Your task to perform on an android device: Search for Mexican restaurants on Maps Image 0: 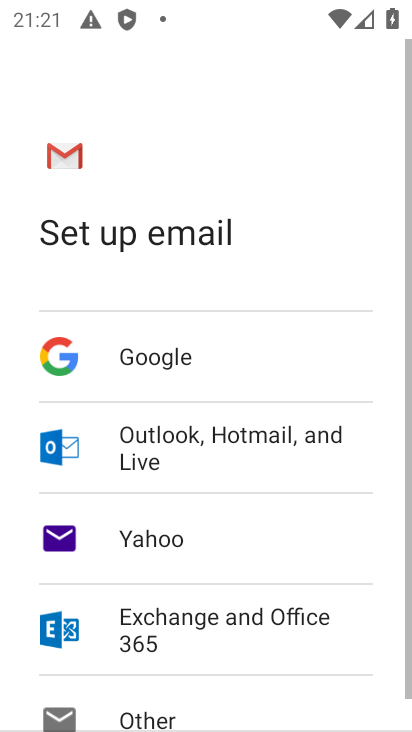
Step 0: press home button
Your task to perform on an android device: Search for Mexican restaurants on Maps Image 1: 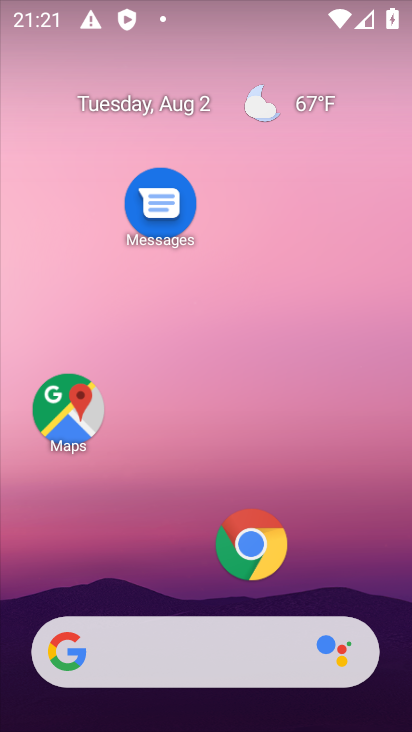
Step 1: click (73, 411)
Your task to perform on an android device: Search for Mexican restaurants on Maps Image 2: 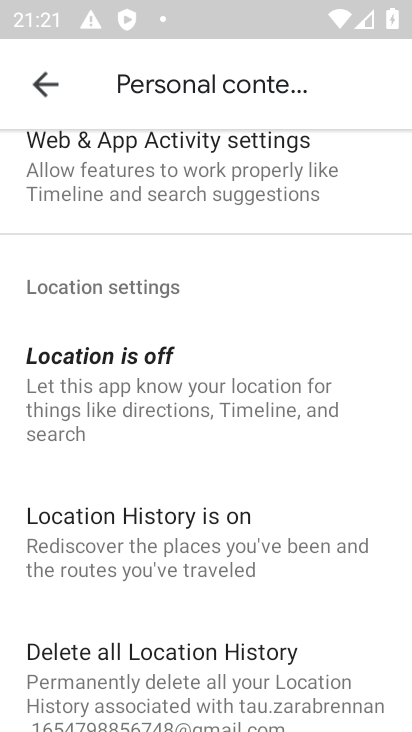
Step 2: click (48, 75)
Your task to perform on an android device: Search for Mexican restaurants on Maps Image 3: 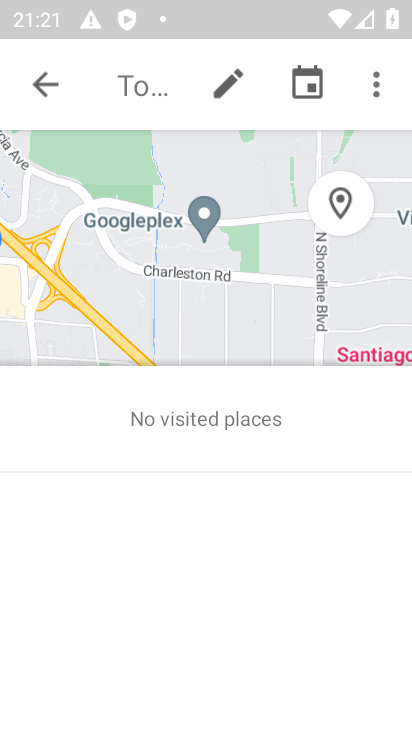
Step 3: click (58, 81)
Your task to perform on an android device: Search for Mexican restaurants on Maps Image 4: 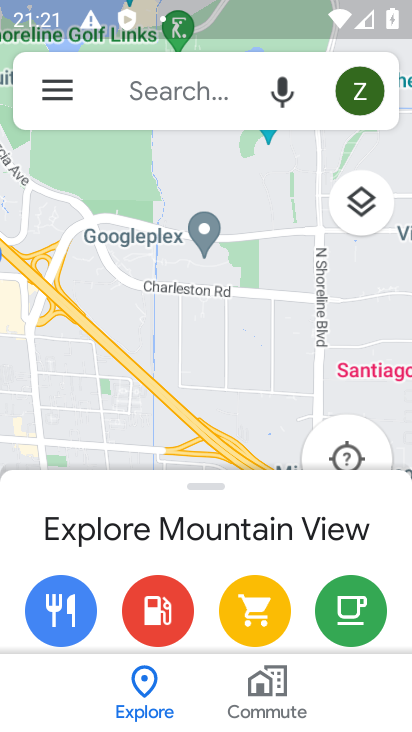
Step 4: click (220, 89)
Your task to perform on an android device: Search for Mexican restaurants on Maps Image 5: 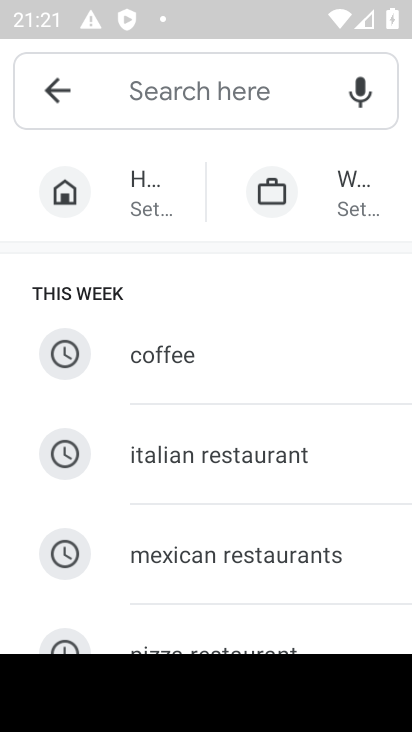
Step 5: click (240, 557)
Your task to perform on an android device: Search for Mexican restaurants on Maps Image 6: 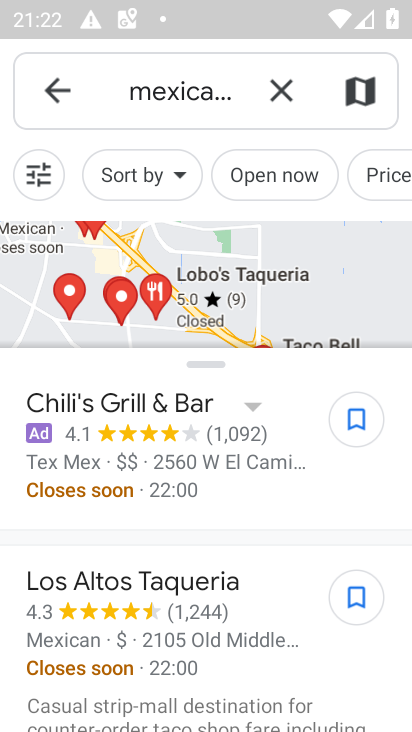
Step 6: task complete